Your task to perform on an android device: turn on priority inbox in the gmail app Image 0: 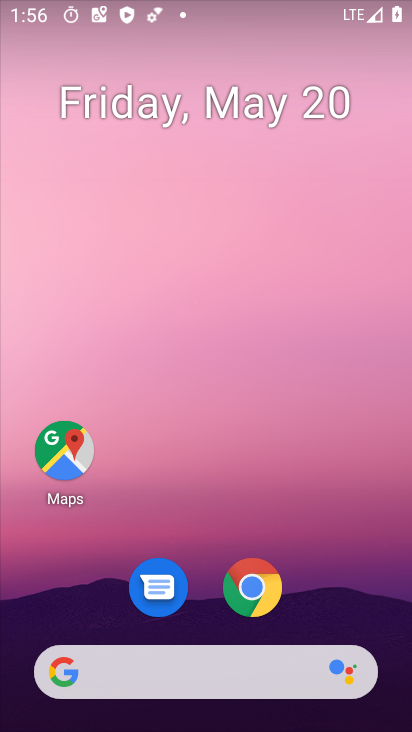
Step 0: drag from (352, 575) to (325, 137)
Your task to perform on an android device: turn on priority inbox in the gmail app Image 1: 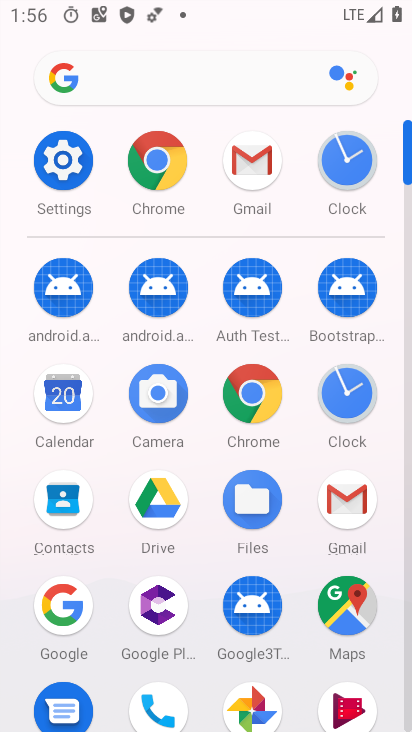
Step 1: click (266, 165)
Your task to perform on an android device: turn on priority inbox in the gmail app Image 2: 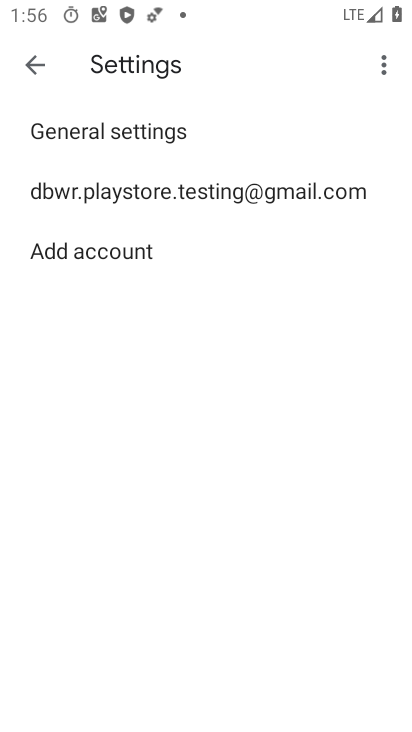
Step 2: click (240, 196)
Your task to perform on an android device: turn on priority inbox in the gmail app Image 3: 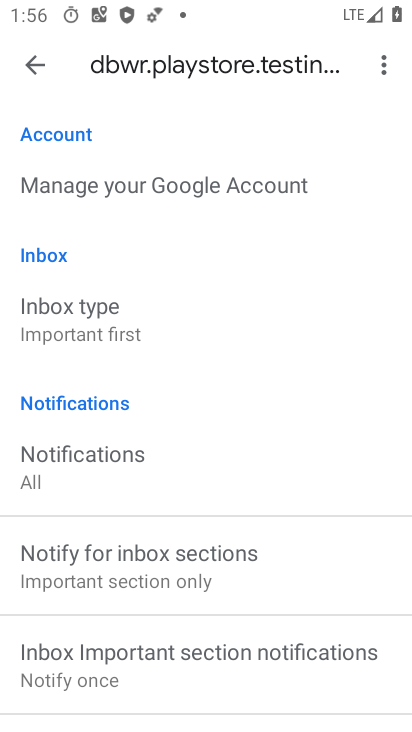
Step 3: drag from (200, 602) to (224, 516)
Your task to perform on an android device: turn on priority inbox in the gmail app Image 4: 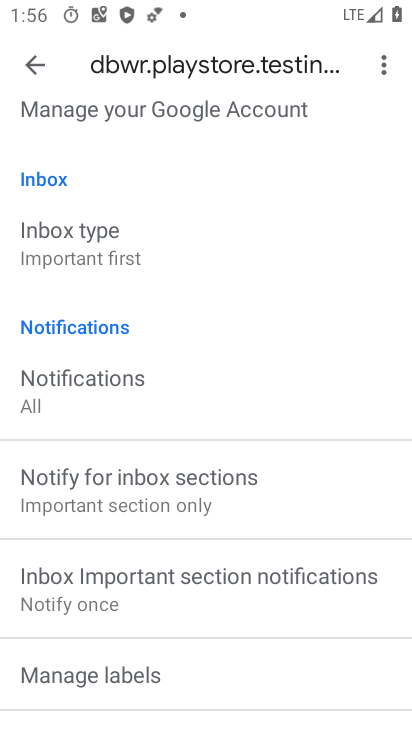
Step 4: click (115, 242)
Your task to perform on an android device: turn on priority inbox in the gmail app Image 5: 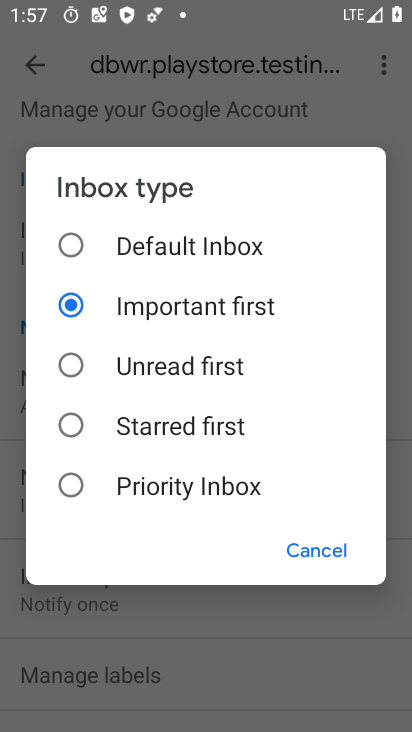
Step 5: task complete